Your task to perform on an android device: change notification settings in the gmail app Image 0: 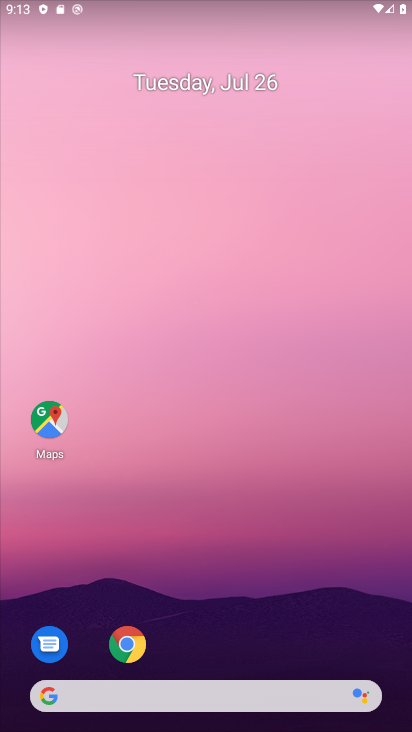
Step 0: drag from (213, 666) to (242, 0)
Your task to perform on an android device: change notification settings in the gmail app Image 1: 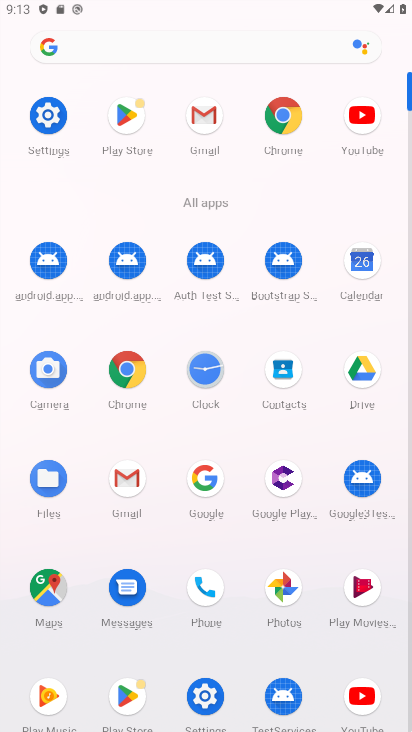
Step 1: click (135, 489)
Your task to perform on an android device: change notification settings in the gmail app Image 2: 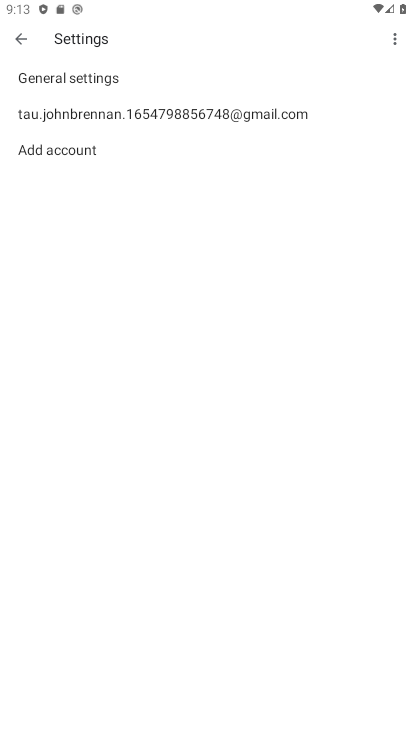
Step 2: click (92, 75)
Your task to perform on an android device: change notification settings in the gmail app Image 3: 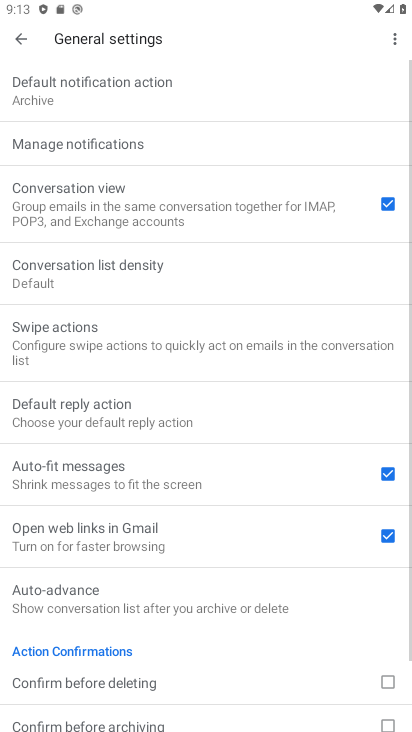
Step 3: click (108, 147)
Your task to perform on an android device: change notification settings in the gmail app Image 4: 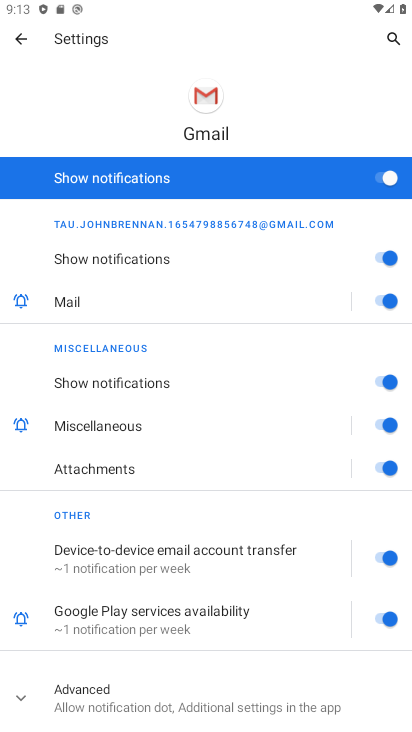
Step 4: click (343, 177)
Your task to perform on an android device: change notification settings in the gmail app Image 5: 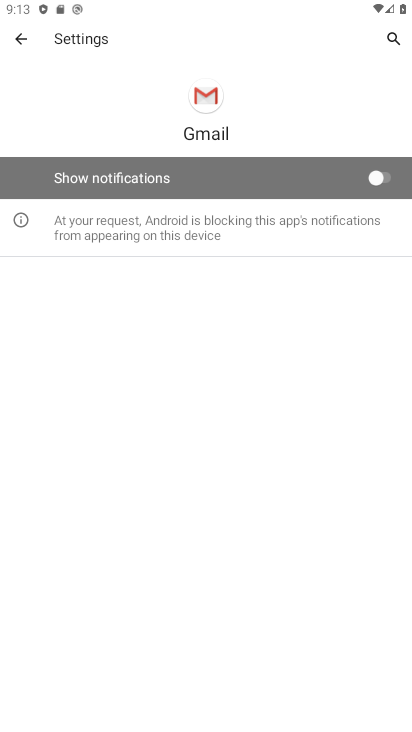
Step 5: task complete